Your task to perform on an android device: Open the Play Movies app and select the watchlist tab. Image 0: 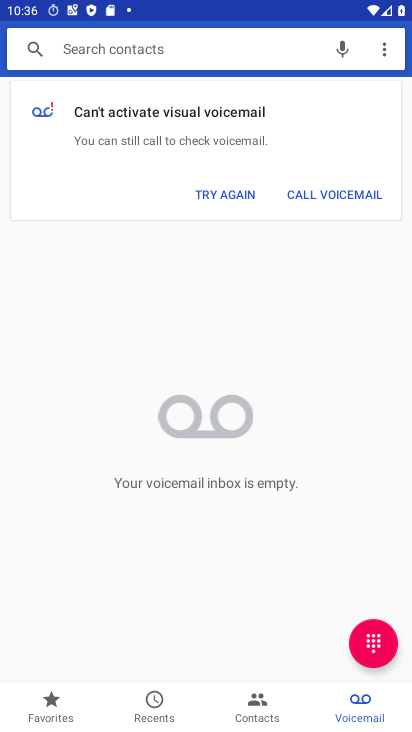
Step 0: press home button
Your task to perform on an android device: Open the Play Movies app and select the watchlist tab. Image 1: 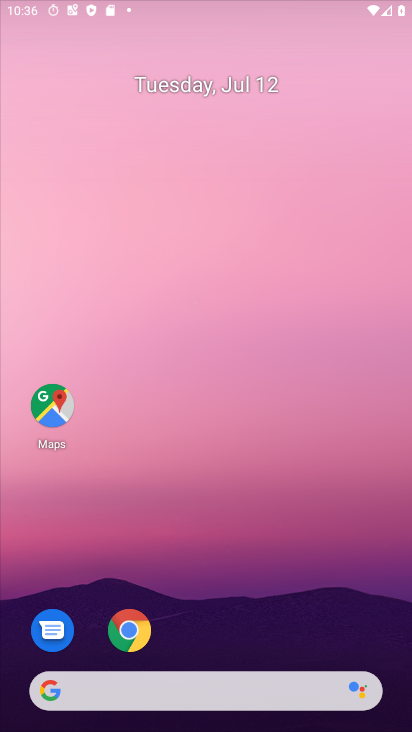
Step 1: drag from (256, 610) to (347, 107)
Your task to perform on an android device: Open the Play Movies app and select the watchlist tab. Image 2: 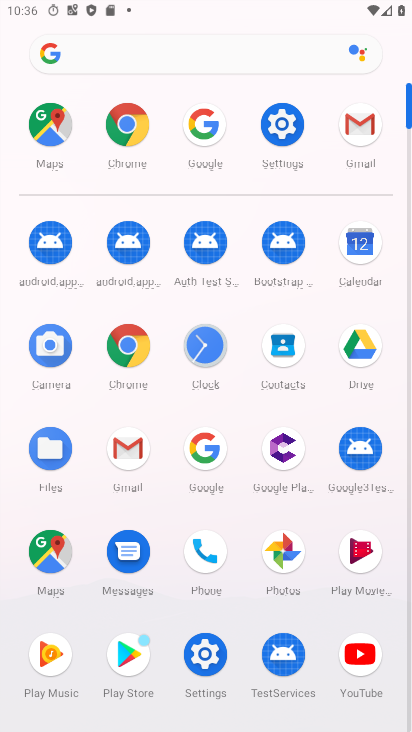
Step 2: drag from (245, 584) to (259, 476)
Your task to perform on an android device: Open the Play Movies app and select the watchlist tab. Image 3: 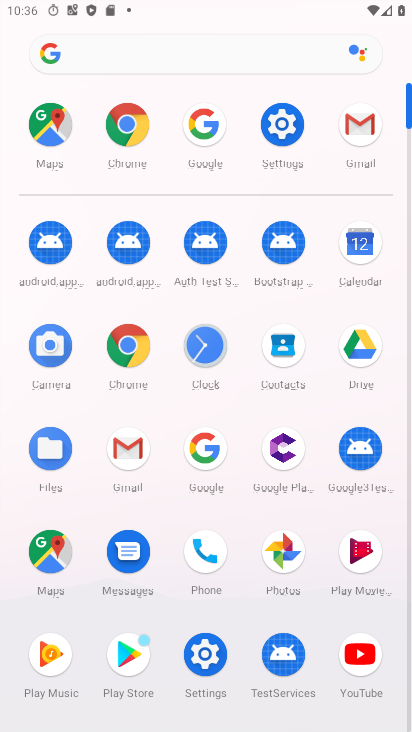
Step 3: click (357, 567)
Your task to perform on an android device: Open the Play Movies app and select the watchlist tab. Image 4: 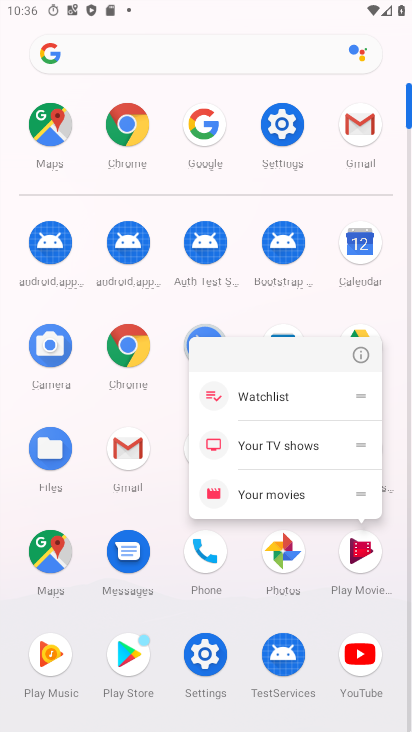
Step 4: click (355, 556)
Your task to perform on an android device: Open the Play Movies app and select the watchlist tab. Image 5: 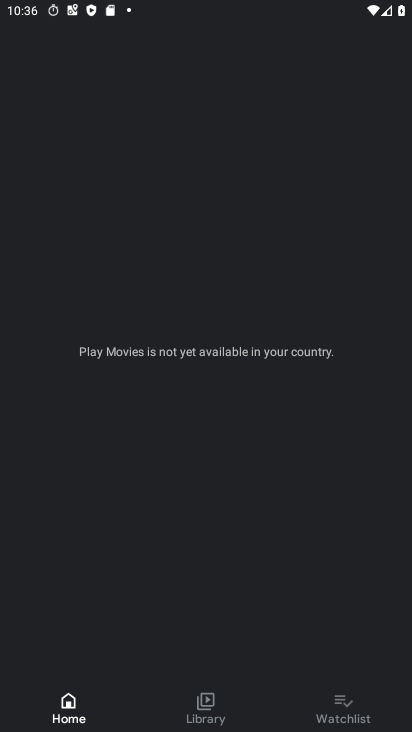
Step 5: click (344, 717)
Your task to perform on an android device: Open the Play Movies app and select the watchlist tab. Image 6: 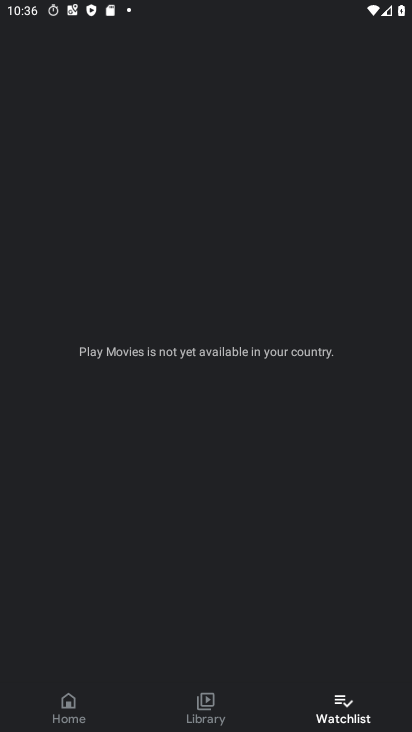
Step 6: task complete